Your task to perform on an android device: clear all cookies in the chrome app Image 0: 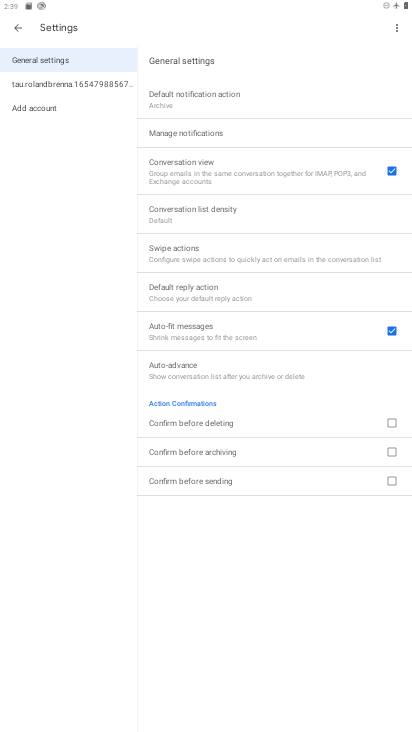
Step 0: press home button
Your task to perform on an android device: clear all cookies in the chrome app Image 1: 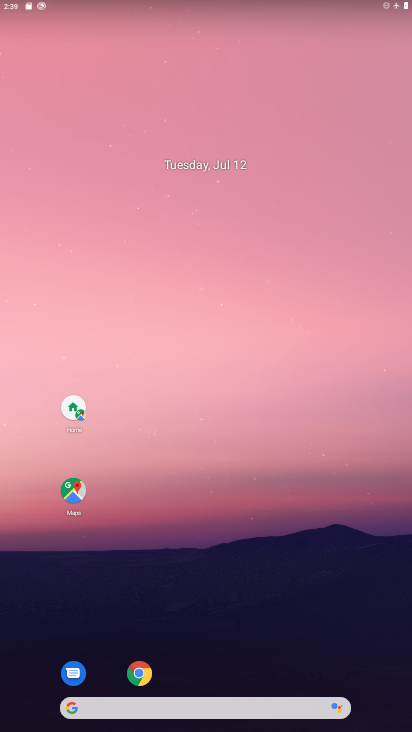
Step 1: drag from (259, 615) to (255, 153)
Your task to perform on an android device: clear all cookies in the chrome app Image 2: 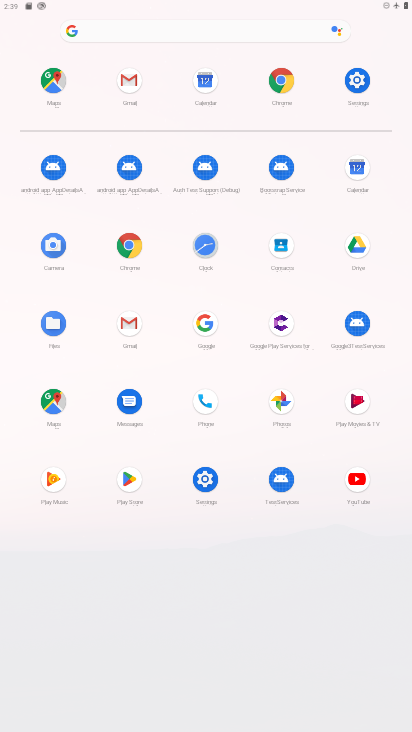
Step 2: click (287, 73)
Your task to perform on an android device: clear all cookies in the chrome app Image 3: 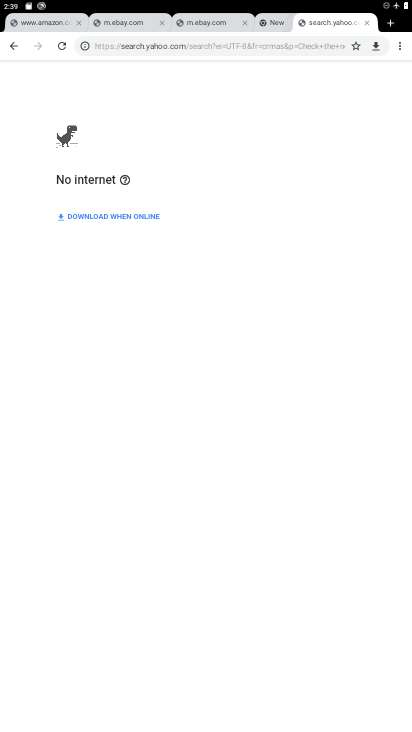
Step 3: click (405, 41)
Your task to perform on an android device: clear all cookies in the chrome app Image 4: 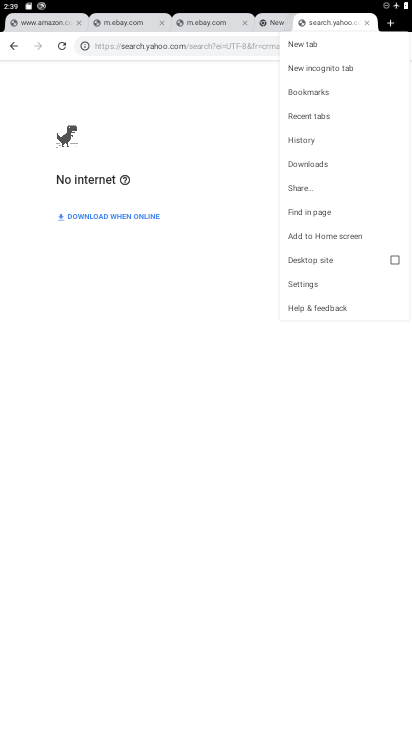
Step 4: click (315, 288)
Your task to perform on an android device: clear all cookies in the chrome app Image 5: 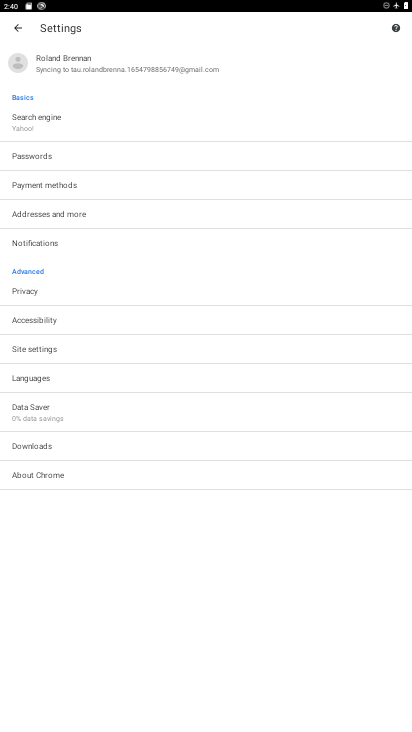
Step 5: click (52, 288)
Your task to perform on an android device: clear all cookies in the chrome app Image 6: 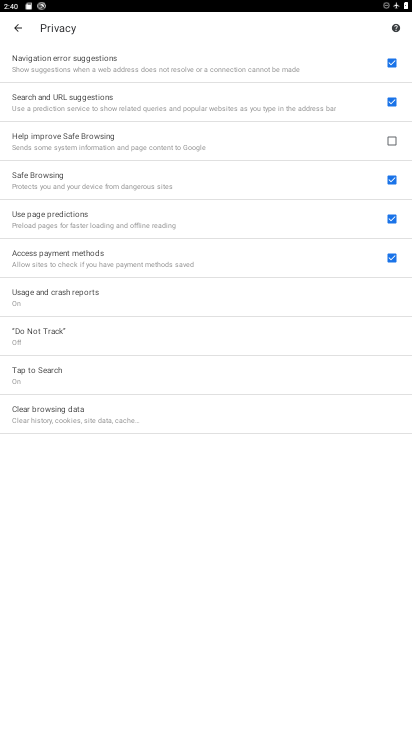
Step 6: click (89, 405)
Your task to perform on an android device: clear all cookies in the chrome app Image 7: 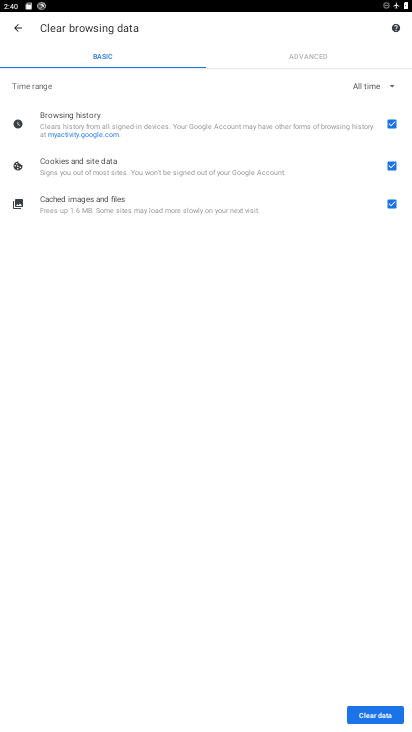
Step 7: click (373, 710)
Your task to perform on an android device: clear all cookies in the chrome app Image 8: 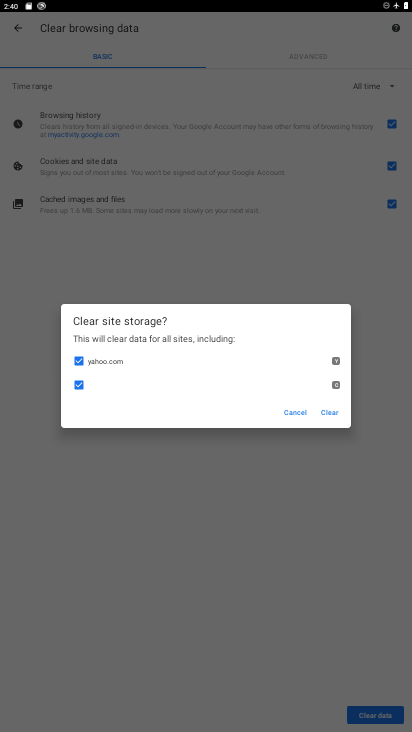
Step 8: click (322, 409)
Your task to perform on an android device: clear all cookies in the chrome app Image 9: 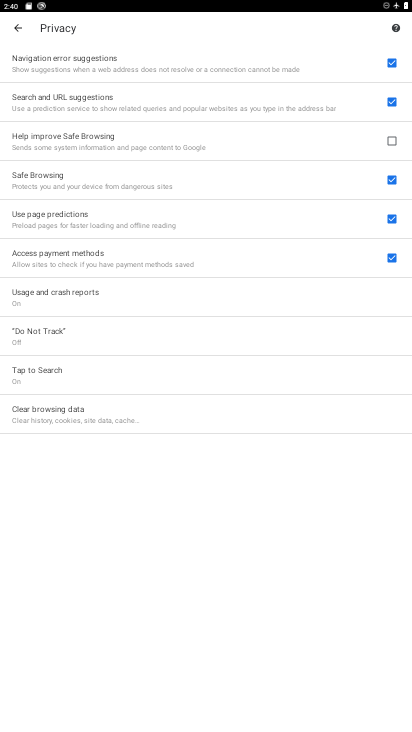
Step 9: task complete